Your task to perform on an android device: Search for "asus zenbook" on newegg, select the first entry, and add it to the cart. Image 0: 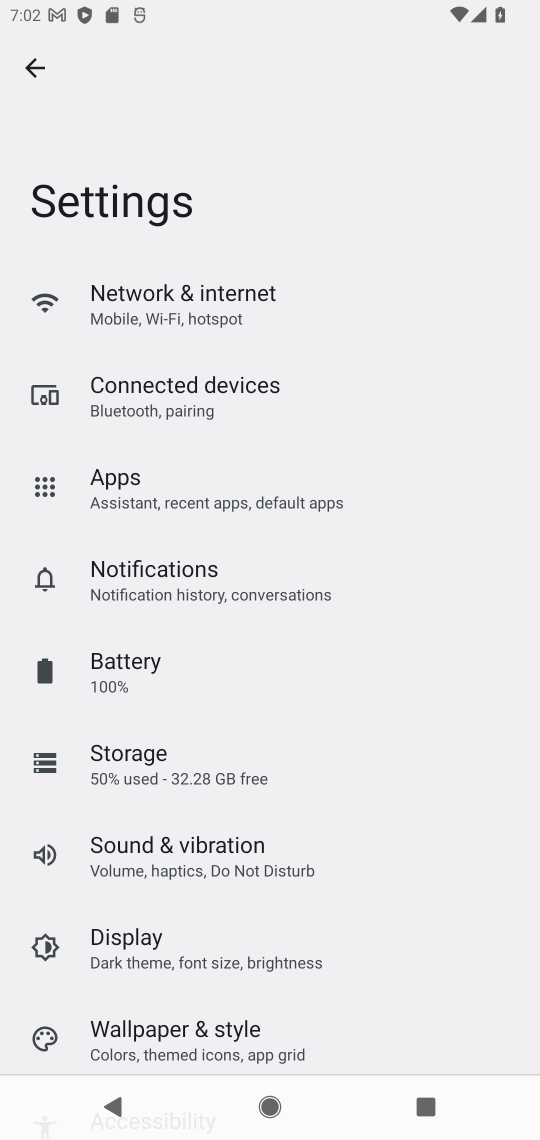
Step 0: press home button
Your task to perform on an android device: Search for "asus zenbook" on newegg, select the first entry, and add it to the cart. Image 1: 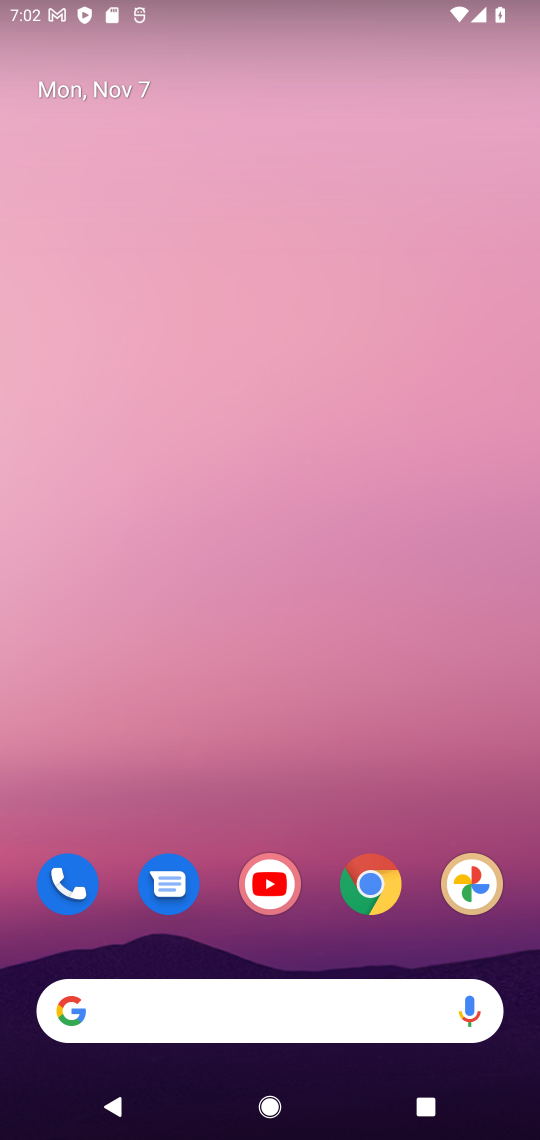
Step 1: click (379, 889)
Your task to perform on an android device: Search for "asus zenbook" on newegg, select the first entry, and add it to the cart. Image 2: 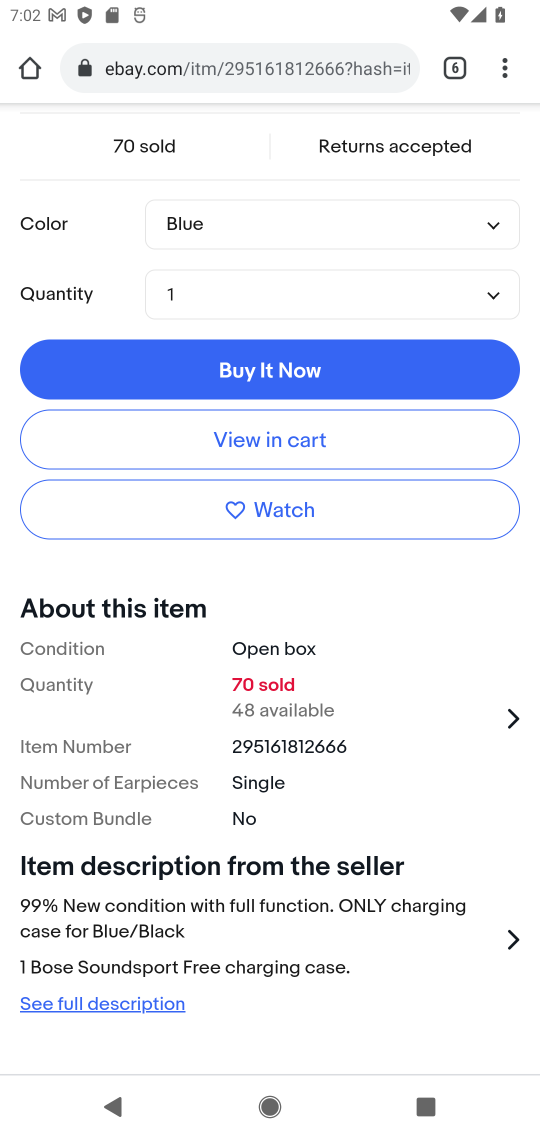
Step 2: click (452, 70)
Your task to perform on an android device: Search for "asus zenbook" on newegg, select the first entry, and add it to the cart. Image 3: 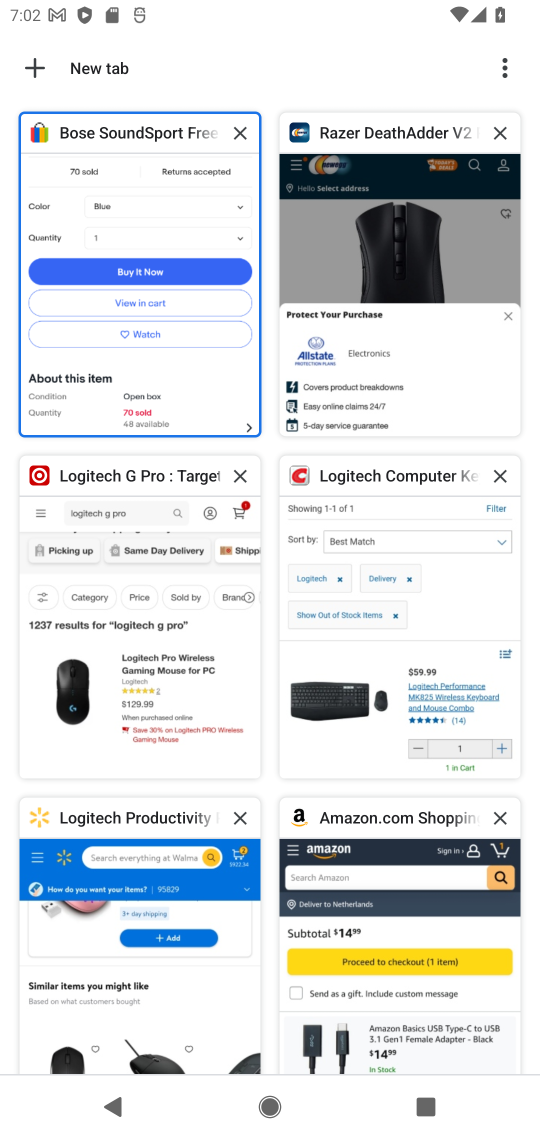
Step 3: click (386, 303)
Your task to perform on an android device: Search for "asus zenbook" on newegg, select the first entry, and add it to the cart. Image 4: 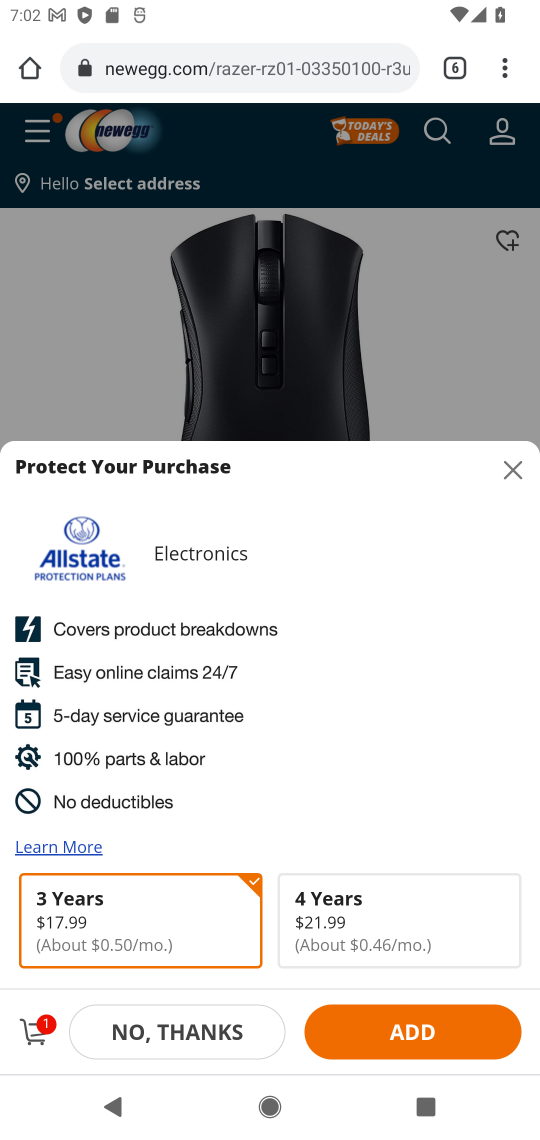
Step 4: click (505, 463)
Your task to perform on an android device: Search for "asus zenbook" on newegg, select the first entry, and add it to the cart. Image 5: 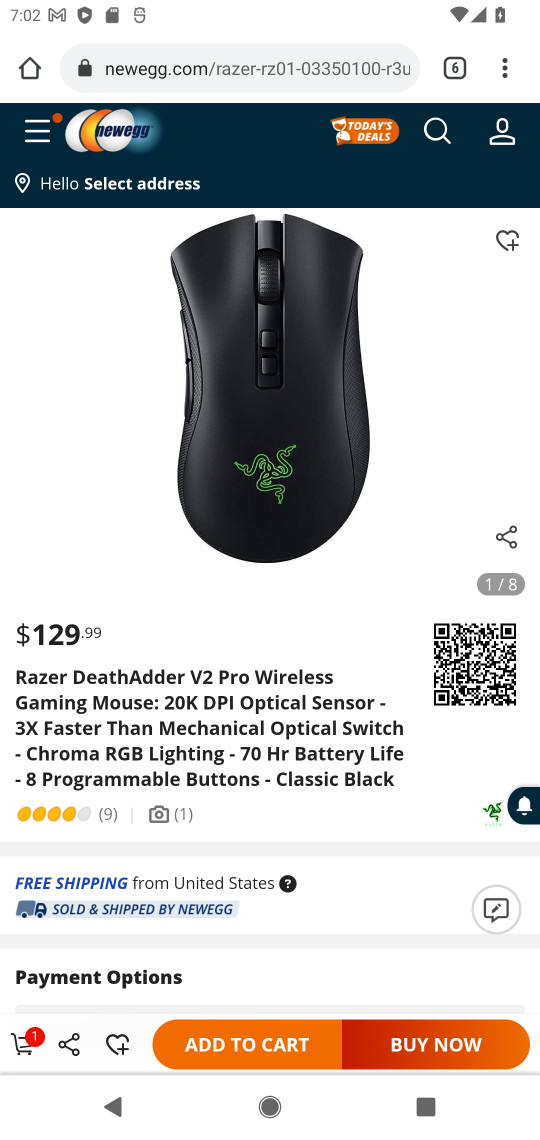
Step 5: click (438, 131)
Your task to perform on an android device: Search for "asus zenbook" on newegg, select the first entry, and add it to the cart. Image 6: 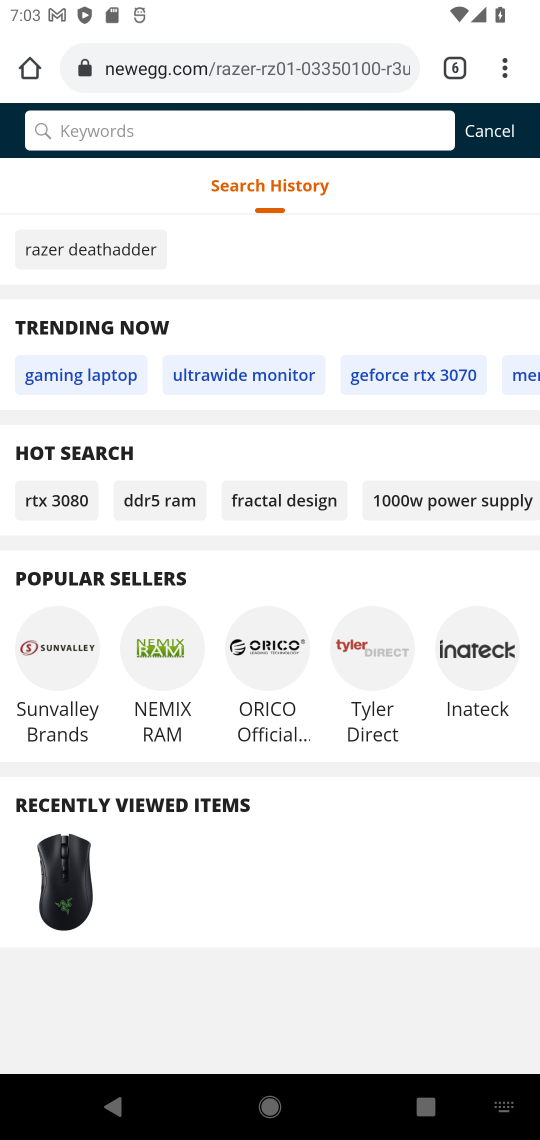
Step 6: type "asus zenbook"
Your task to perform on an android device: Search for "asus zenbook" on newegg, select the first entry, and add it to the cart. Image 7: 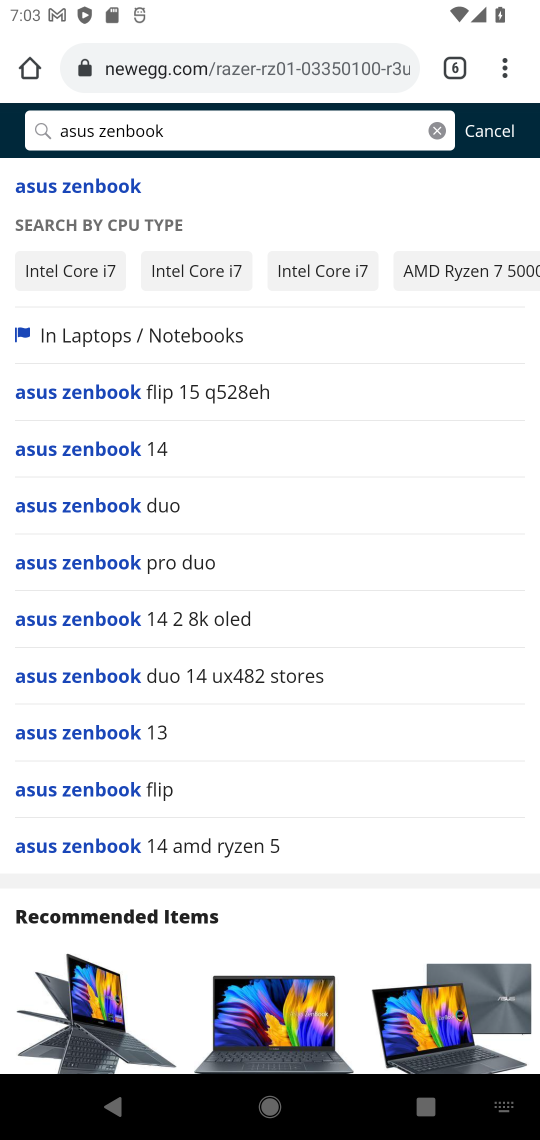
Step 7: click (60, 180)
Your task to perform on an android device: Search for "asus zenbook" on newegg, select the first entry, and add it to the cart. Image 8: 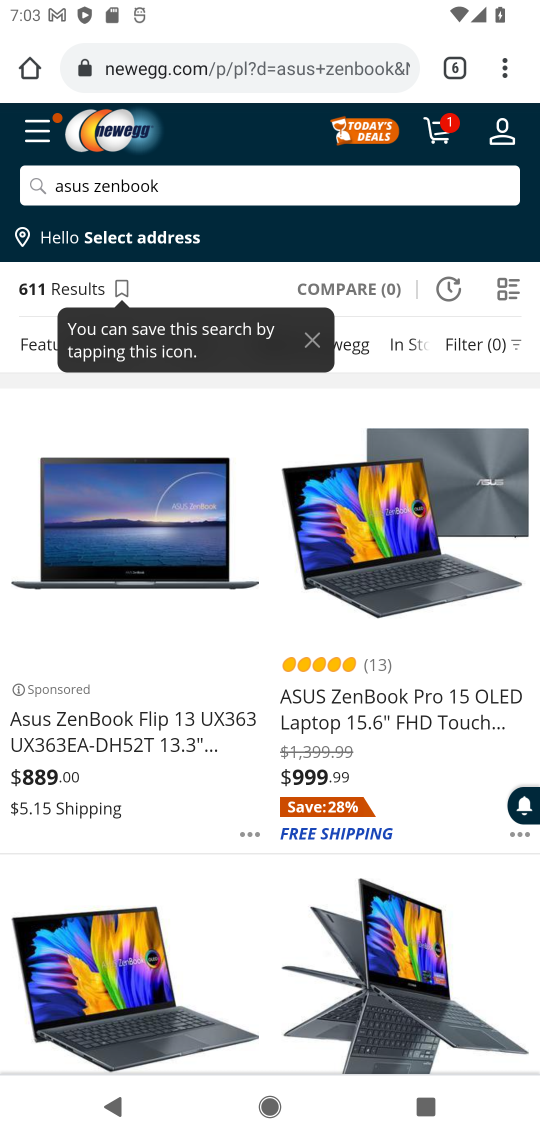
Step 8: click (127, 733)
Your task to perform on an android device: Search for "asus zenbook" on newegg, select the first entry, and add it to the cart. Image 9: 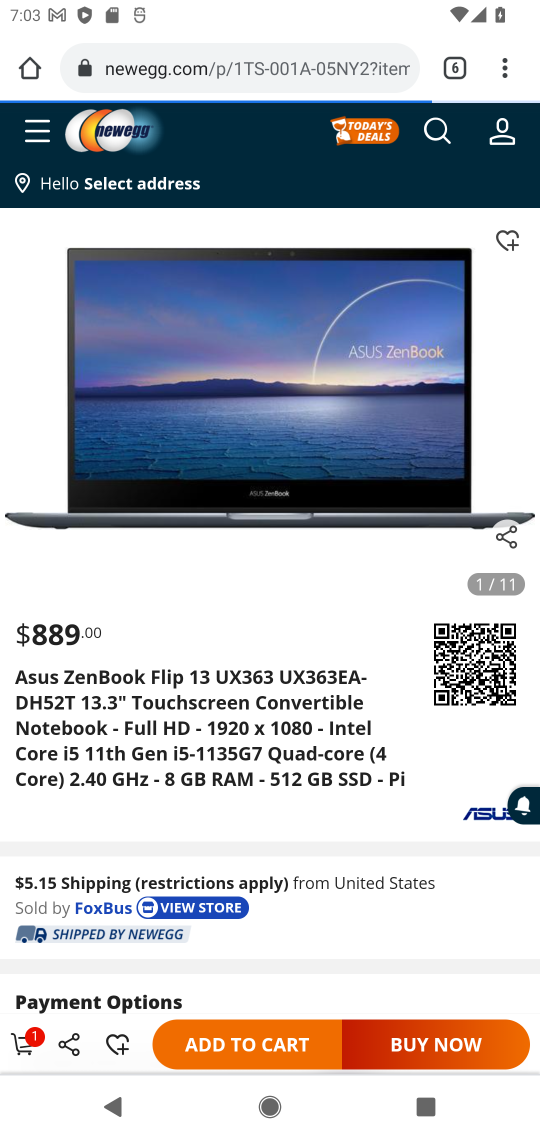
Step 9: click (227, 1046)
Your task to perform on an android device: Search for "asus zenbook" on newegg, select the first entry, and add it to the cart. Image 10: 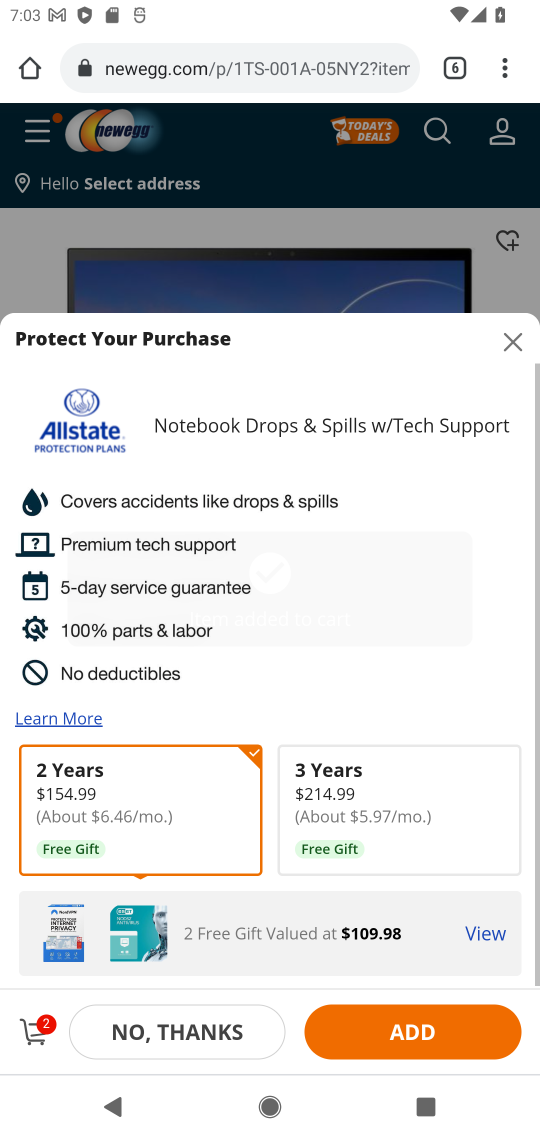
Step 10: task complete